Your task to perform on an android device: clear history in the chrome app Image 0: 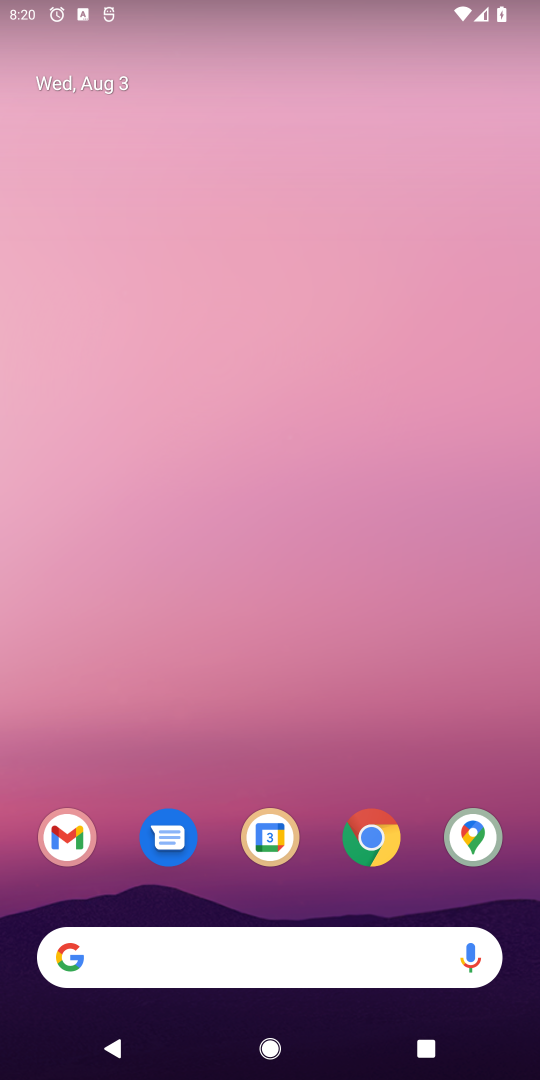
Step 0: press home button
Your task to perform on an android device: clear history in the chrome app Image 1: 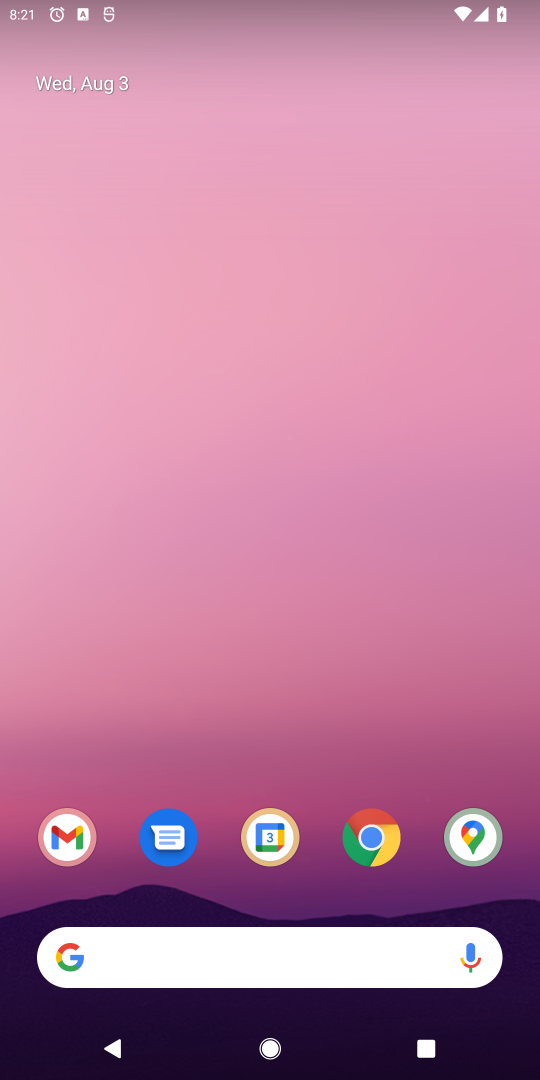
Step 1: click (376, 850)
Your task to perform on an android device: clear history in the chrome app Image 2: 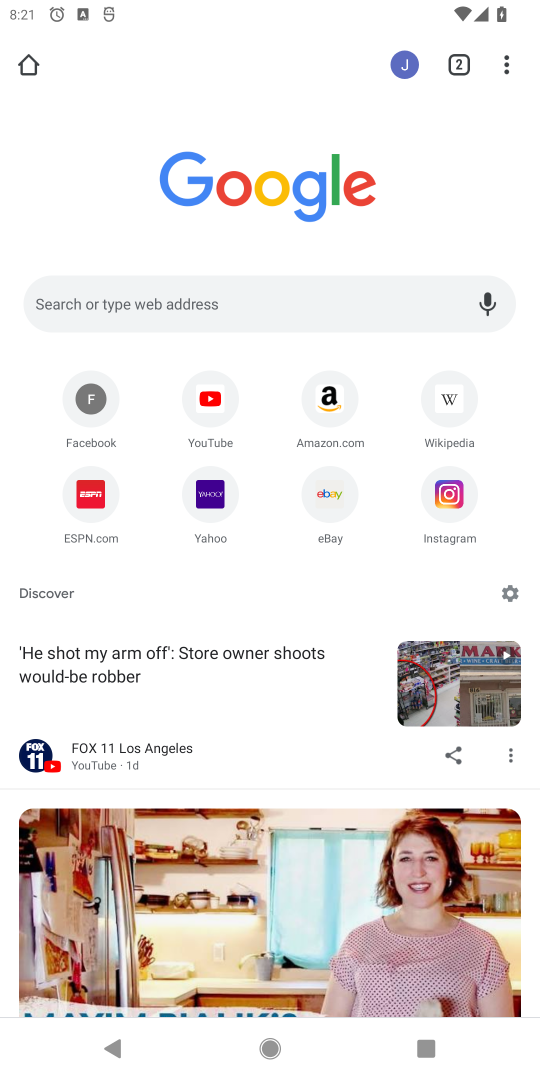
Step 2: click (504, 58)
Your task to perform on an android device: clear history in the chrome app Image 3: 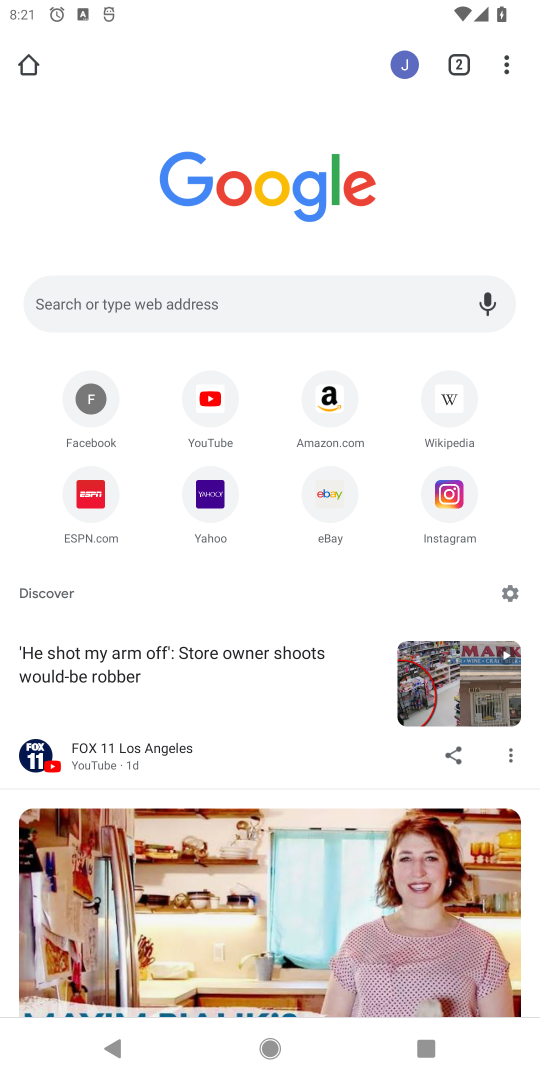
Step 3: task complete